Your task to perform on an android device: Show me popular videos on Youtube Image 0: 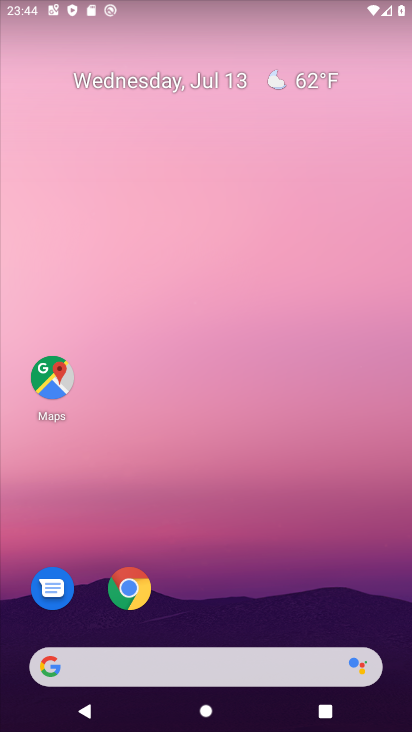
Step 0: drag from (190, 647) to (197, 292)
Your task to perform on an android device: Show me popular videos on Youtube Image 1: 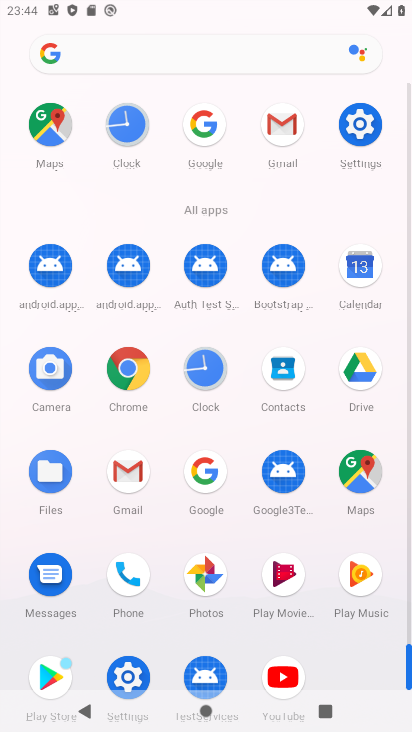
Step 1: click (277, 694)
Your task to perform on an android device: Show me popular videos on Youtube Image 2: 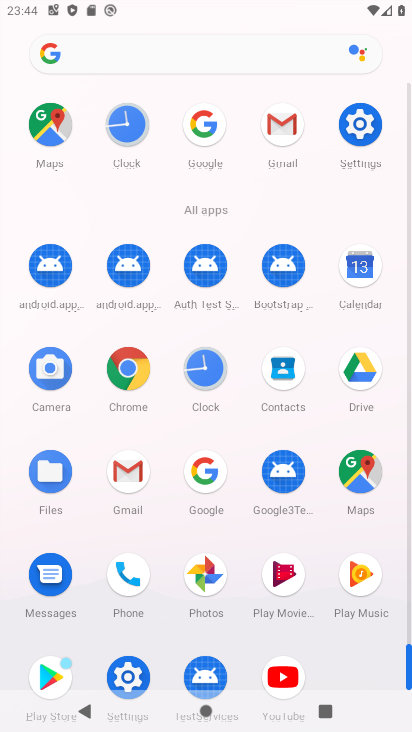
Step 2: click (271, 678)
Your task to perform on an android device: Show me popular videos on Youtube Image 3: 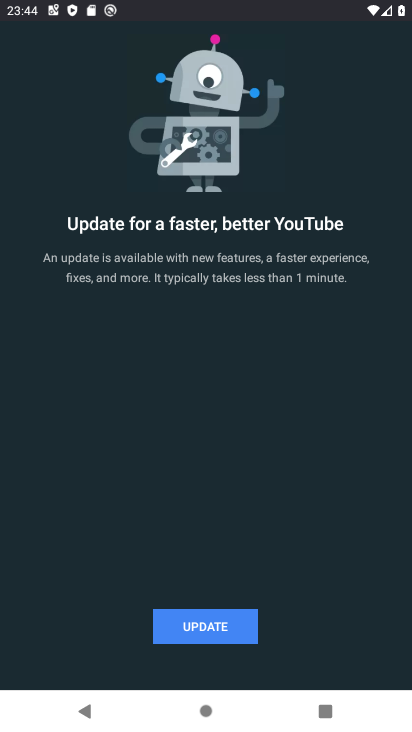
Step 3: click (204, 624)
Your task to perform on an android device: Show me popular videos on Youtube Image 4: 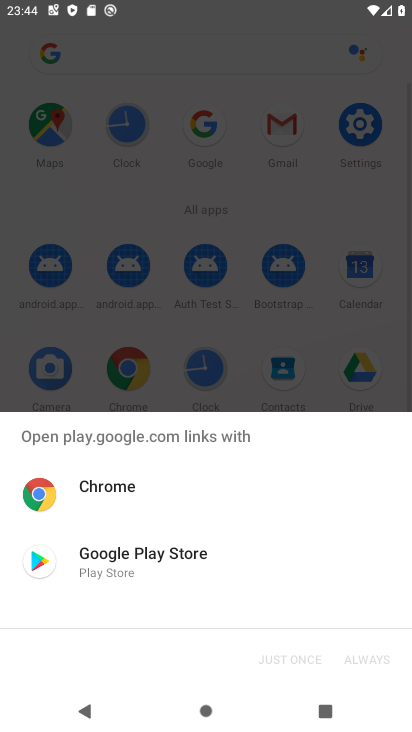
Step 4: click (129, 563)
Your task to perform on an android device: Show me popular videos on Youtube Image 5: 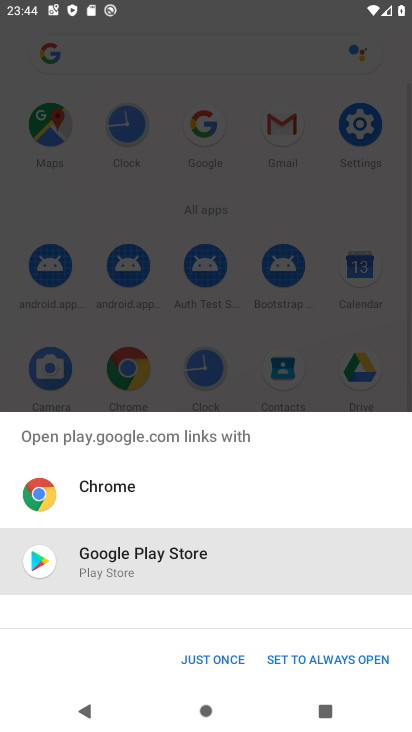
Step 5: click (233, 653)
Your task to perform on an android device: Show me popular videos on Youtube Image 6: 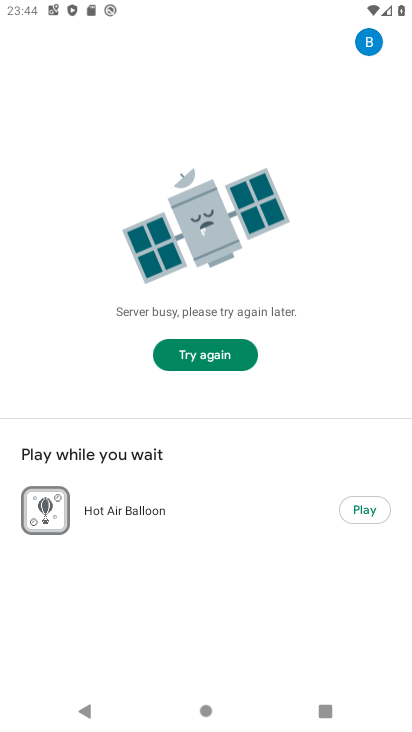
Step 6: task complete